Your task to perform on an android device: Open the phone app and click the voicemail tab. Image 0: 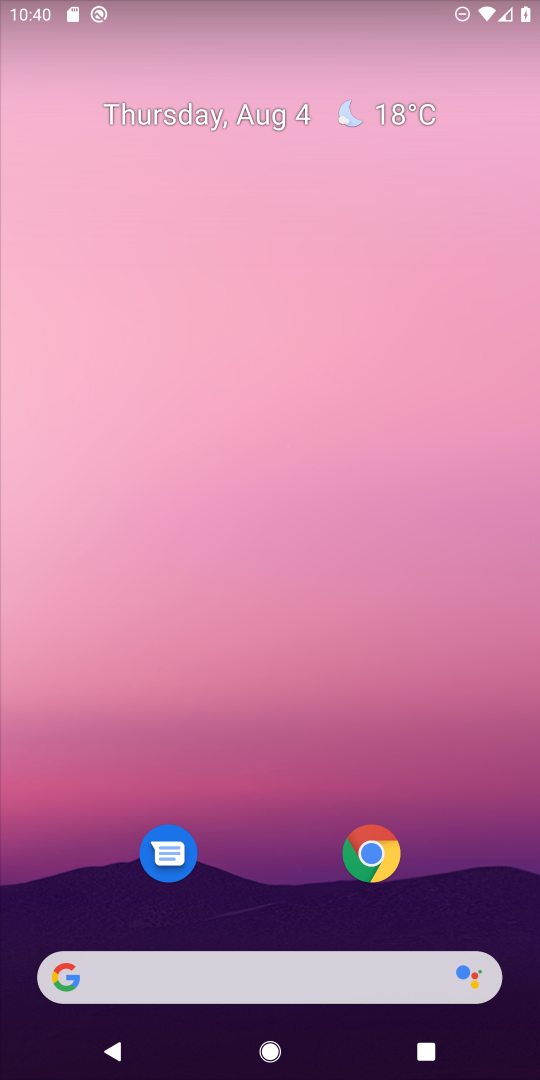
Step 0: drag from (267, 931) to (176, 38)
Your task to perform on an android device: Open the phone app and click the voicemail tab. Image 1: 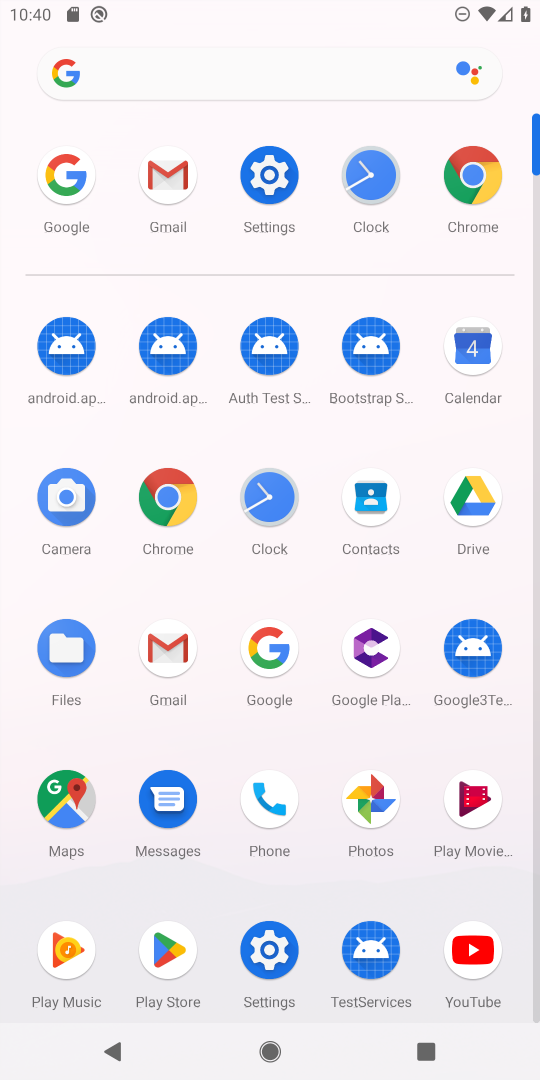
Step 1: click (254, 774)
Your task to perform on an android device: Open the phone app and click the voicemail tab. Image 2: 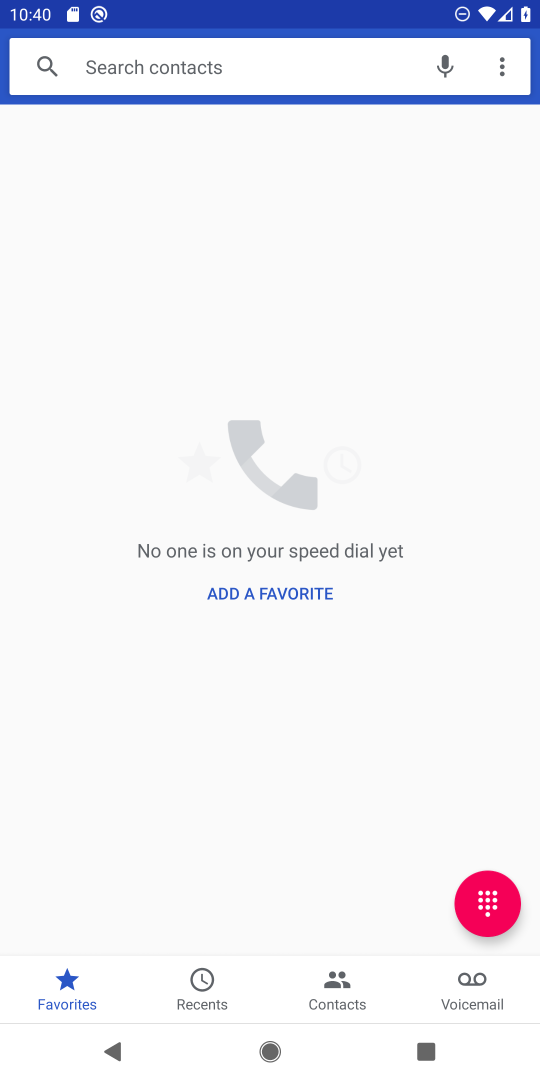
Step 2: click (474, 975)
Your task to perform on an android device: Open the phone app and click the voicemail tab. Image 3: 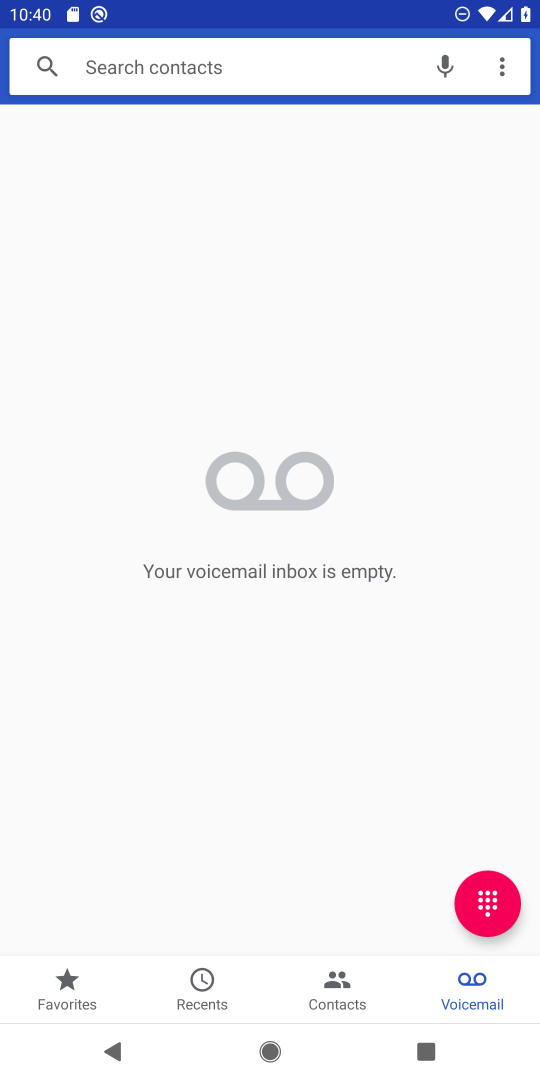
Step 3: task complete